Your task to perform on an android device: What's the weather? Image 0: 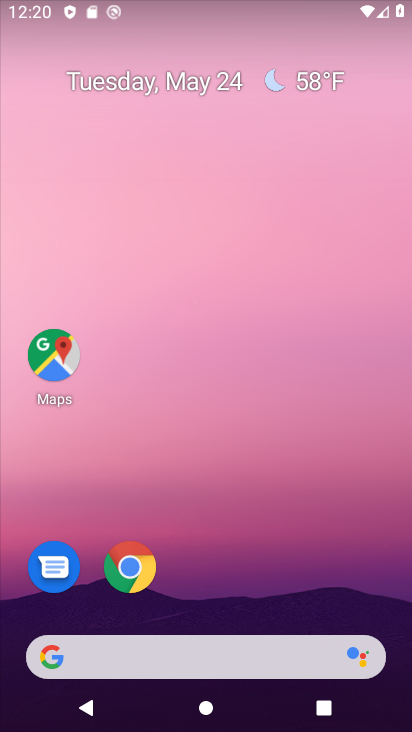
Step 0: click (170, 199)
Your task to perform on an android device: What's the weather? Image 1: 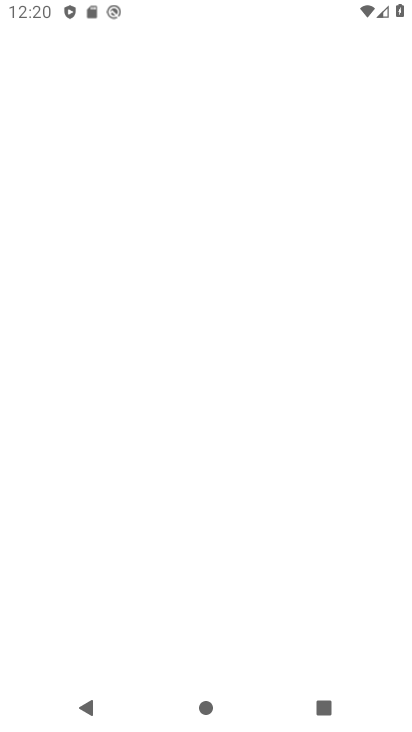
Step 1: press home button
Your task to perform on an android device: What's the weather? Image 2: 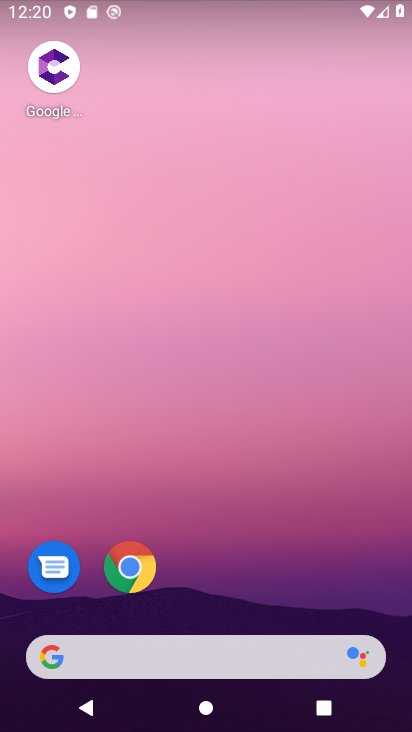
Step 2: drag from (82, 393) to (409, 365)
Your task to perform on an android device: What's the weather? Image 3: 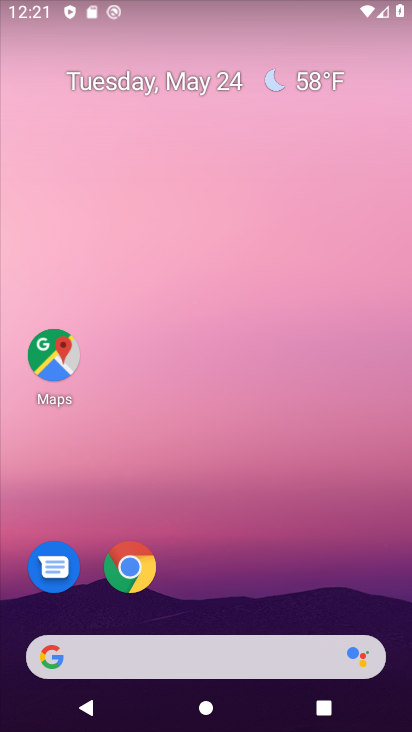
Step 3: click (298, 83)
Your task to perform on an android device: What's the weather? Image 4: 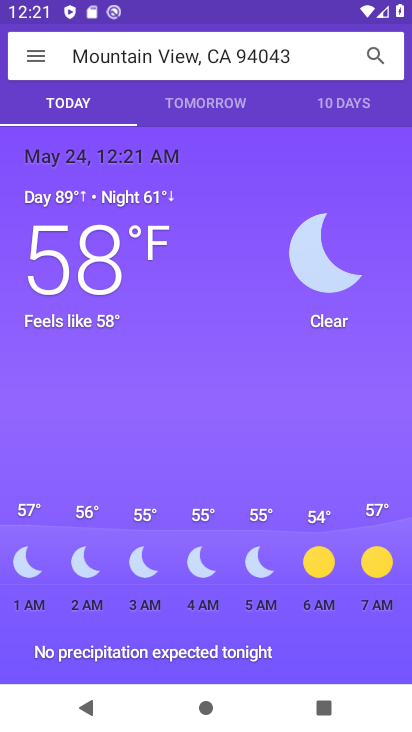
Step 4: task complete